Your task to perform on an android device: see sites visited before in the chrome app Image 0: 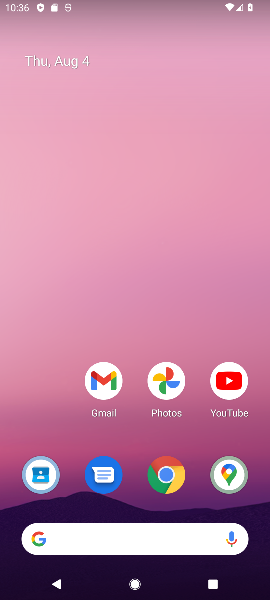
Step 0: click (169, 470)
Your task to perform on an android device: see sites visited before in the chrome app Image 1: 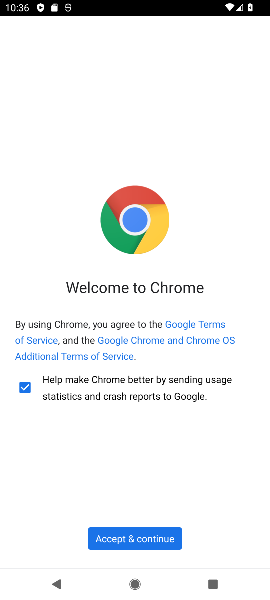
Step 1: click (140, 540)
Your task to perform on an android device: see sites visited before in the chrome app Image 2: 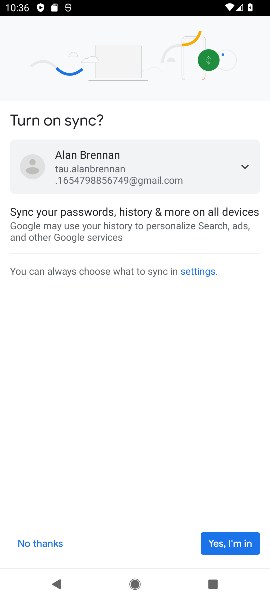
Step 2: click (207, 543)
Your task to perform on an android device: see sites visited before in the chrome app Image 3: 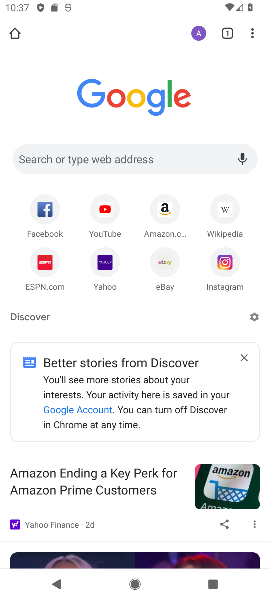
Step 3: click (253, 35)
Your task to perform on an android device: see sites visited before in the chrome app Image 4: 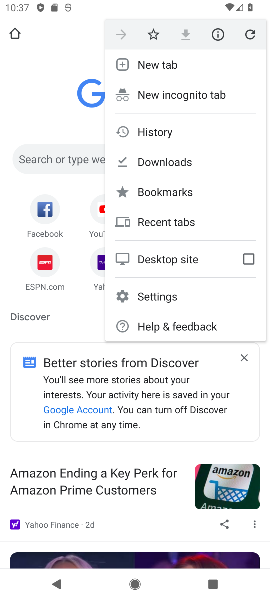
Step 4: click (145, 131)
Your task to perform on an android device: see sites visited before in the chrome app Image 5: 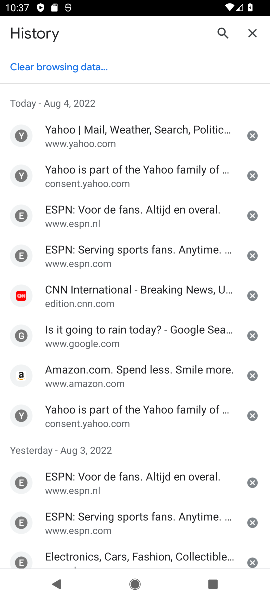
Step 5: task complete